Your task to perform on an android device: change text size in settings app Image 0: 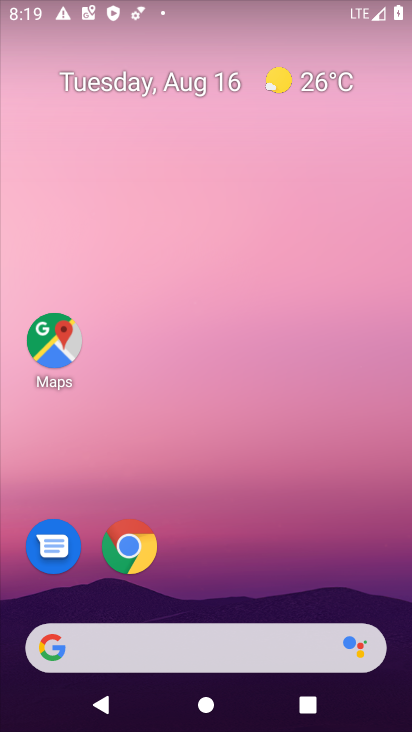
Step 0: press home button
Your task to perform on an android device: change text size in settings app Image 1: 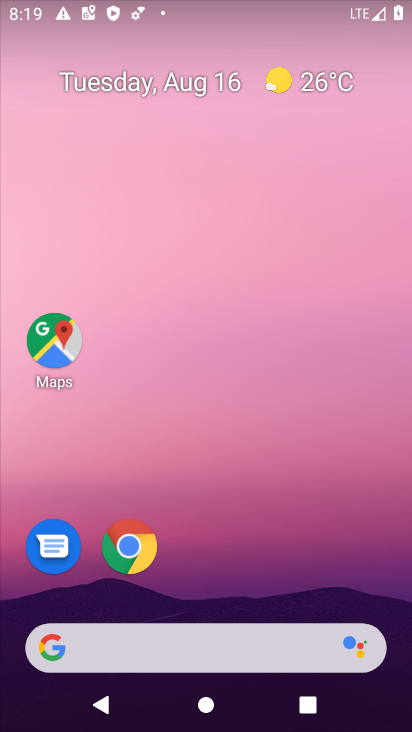
Step 1: drag from (233, 533) to (281, 6)
Your task to perform on an android device: change text size in settings app Image 2: 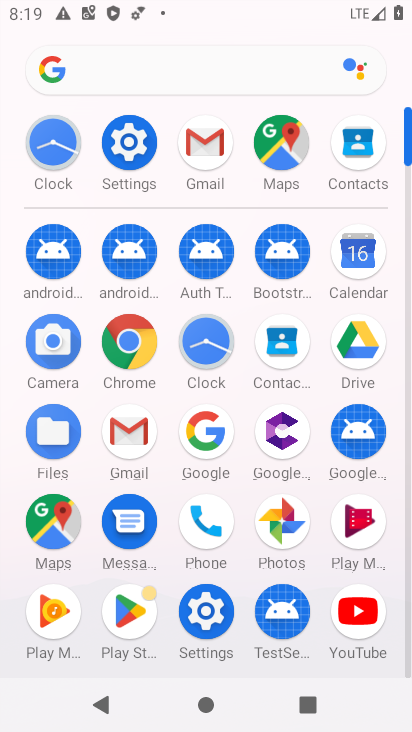
Step 2: click (127, 133)
Your task to perform on an android device: change text size in settings app Image 3: 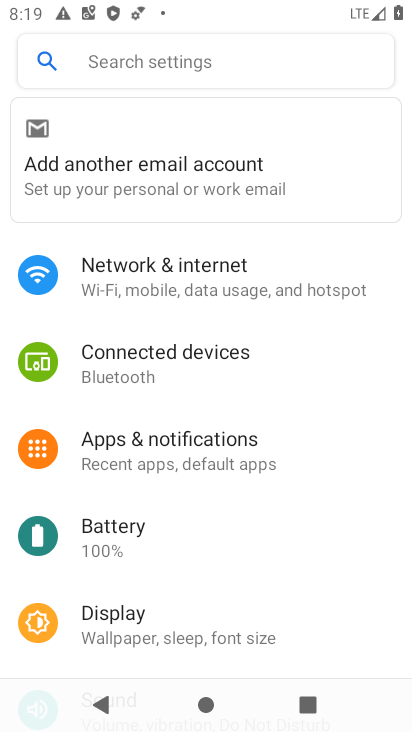
Step 3: click (162, 608)
Your task to perform on an android device: change text size in settings app Image 4: 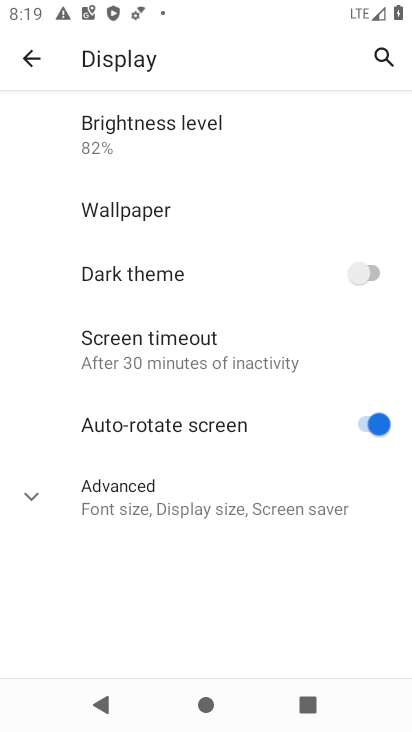
Step 4: click (28, 489)
Your task to perform on an android device: change text size in settings app Image 5: 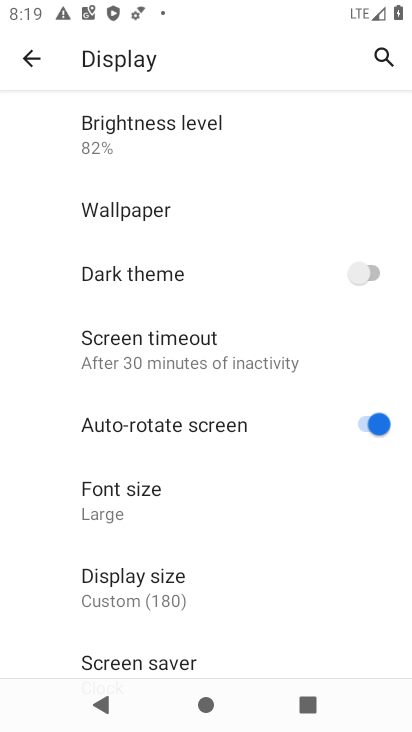
Step 5: click (107, 492)
Your task to perform on an android device: change text size in settings app Image 6: 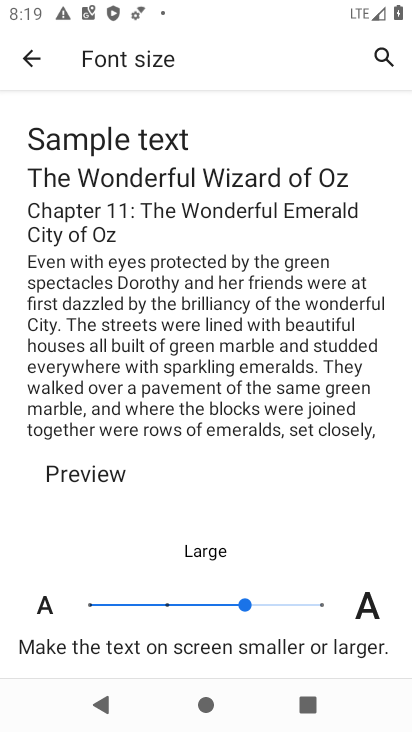
Step 6: click (165, 607)
Your task to perform on an android device: change text size in settings app Image 7: 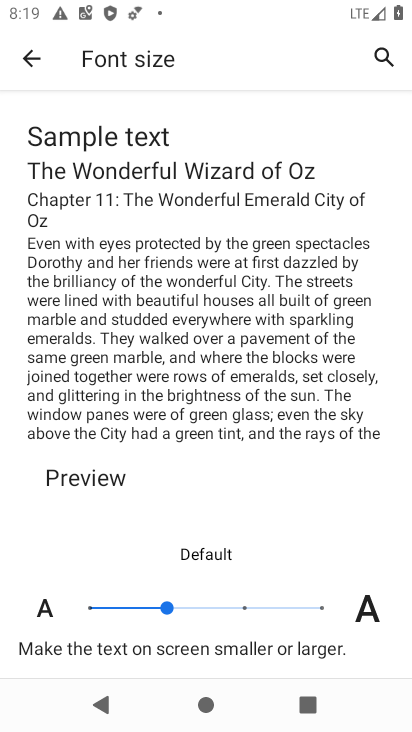
Step 7: task complete